Your task to perform on an android device: Show me productivity apps on the Play Store Image 0: 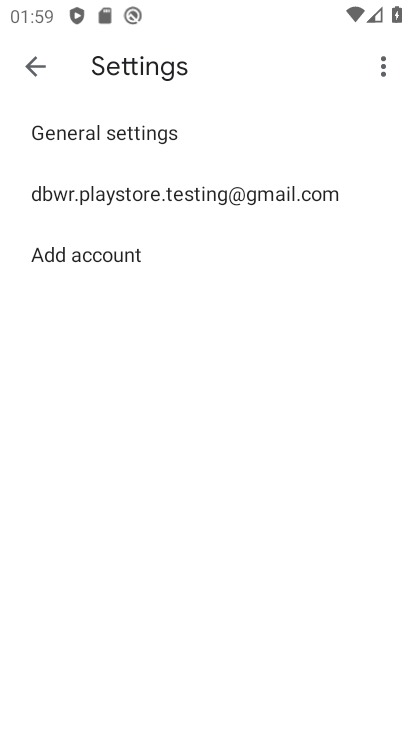
Step 0: press home button
Your task to perform on an android device: Show me productivity apps on the Play Store Image 1: 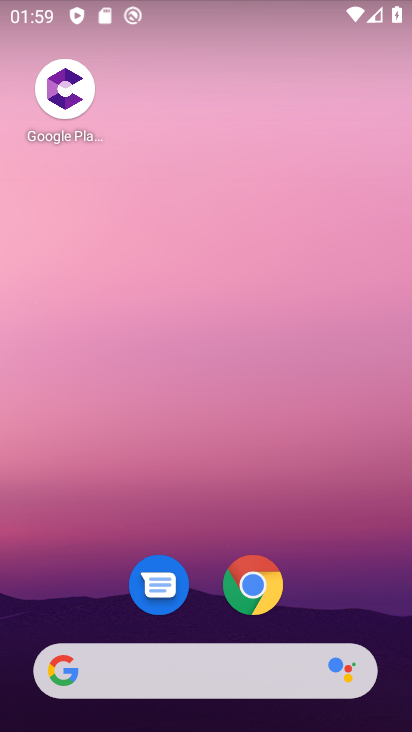
Step 1: drag from (185, 502) to (220, 7)
Your task to perform on an android device: Show me productivity apps on the Play Store Image 2: 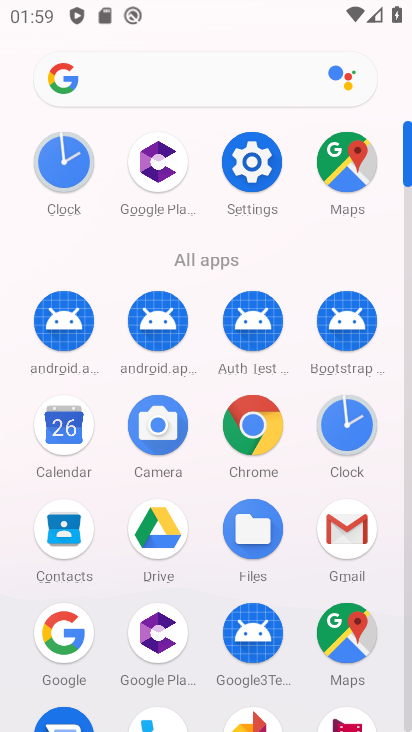
Step 2: drag from (196, 477) to (247, 191)
Your task to perform on an android device: Show me productivity apps on the Play Store Image 3: 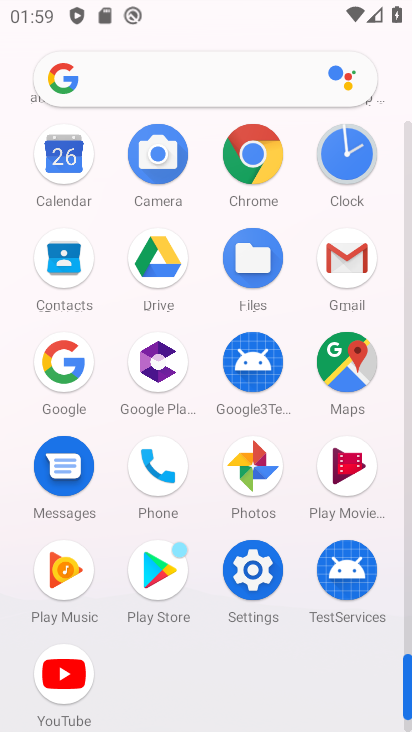
Step 3: click (149, 552)
Your task to perform on an android device: Show me productivity apps on the Play Store Image 4: 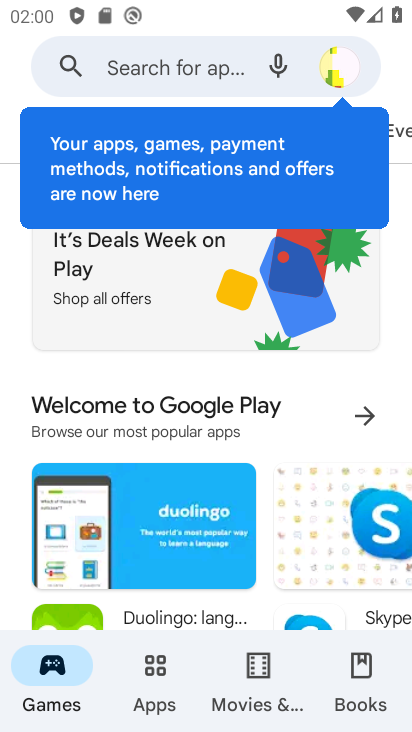
Step 4: click (151, 659)
Your task to perform on an android device: Show me productivity apps on the Play Store Image 5: 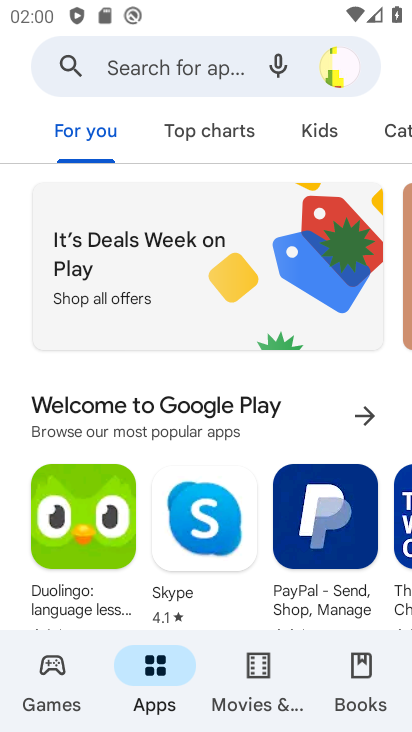
Step 5: click (390, 126)
Your task to perform on an android device: Show me productivity apps on the Play Store Image 6: 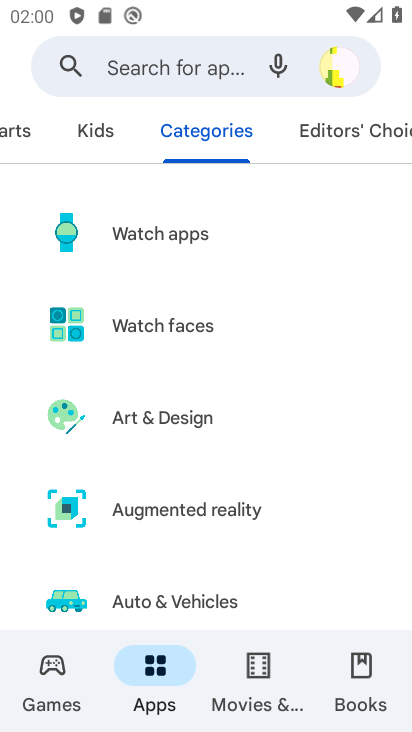
Step 6: drag from (275, 561) to (308, 142)
Your task to perform on an android device: Show me productivity apps on the Play Store Image 7: 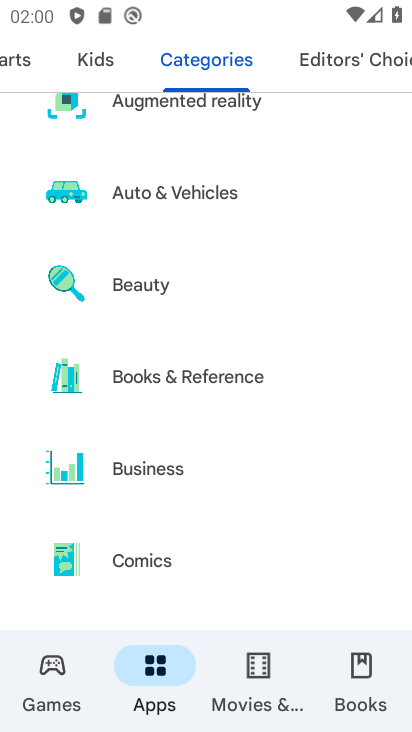
Step 7: drag from (236, 560) to (228, 129)
Your task to perform on an android device: Show me productivity apps on the Play Store Image 8: 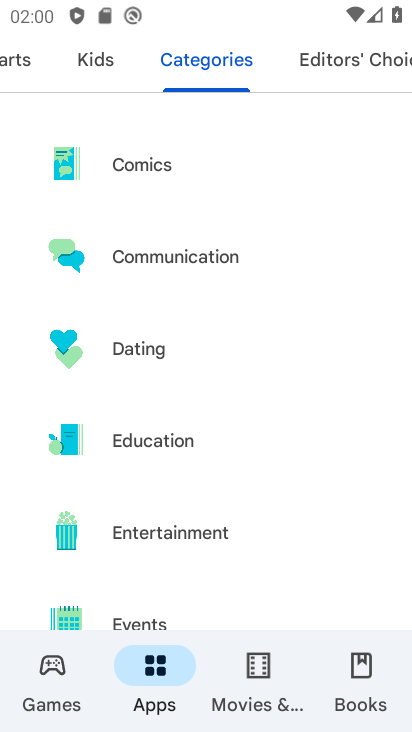
Step 8: drag from (292, 559) to (310, 126)
Your task to perform on an android device: Show me productivity apps on the Play Store Image 9: 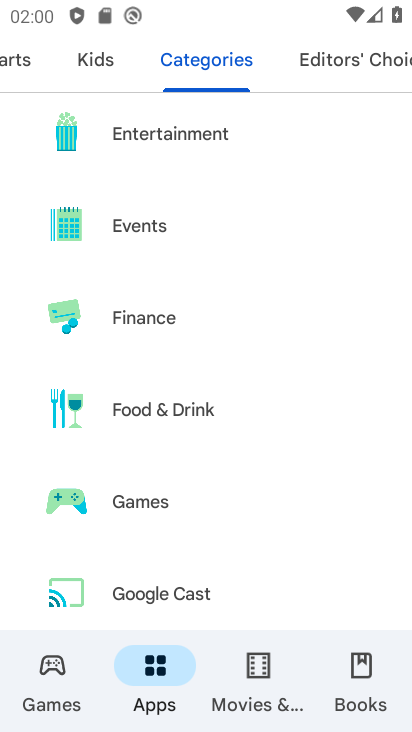
Step 9: drag from (263, 461) to (268, 143)
Your task to perform on an android device: Show me productivity apps on the Play Store Image 10: 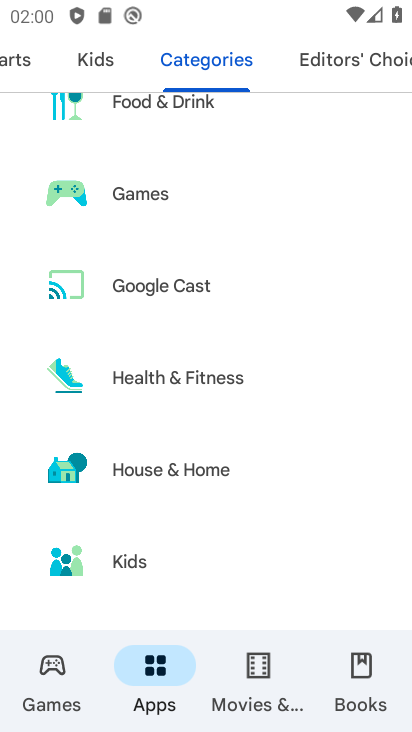
Step 10: drag from (254, 528) to (268, 153)
Your task to perform on an android device: Show me productivity apps on the Play Store Image 11: 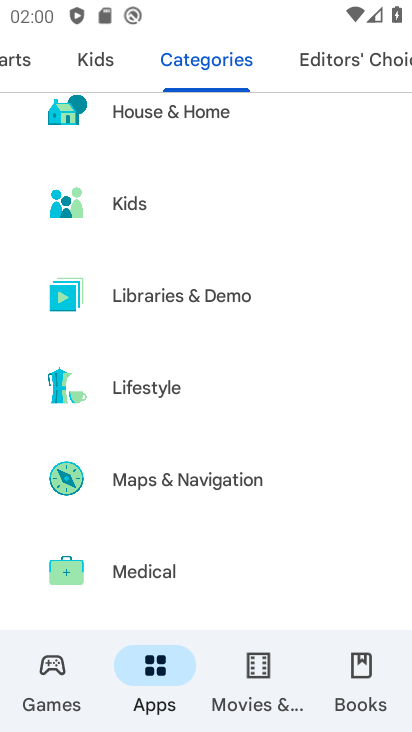
Step 11: drag from (238, 539) to (251, 170)
Your task to perform on an android device: Show me productivity apps on the Play Store Image 12: 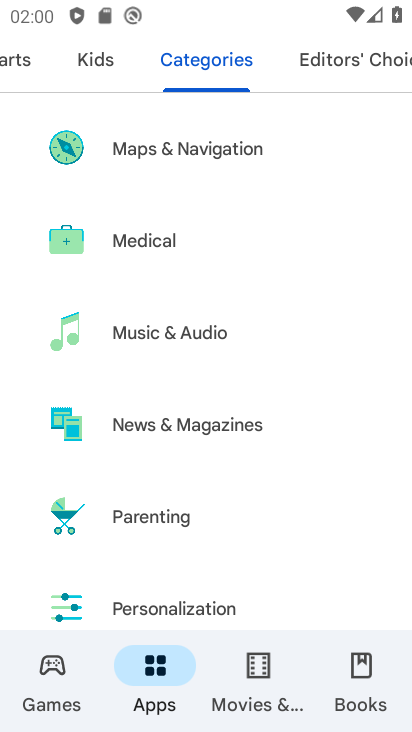
Step 12: drag from (242, 500) to (270, 162)
Your task to perform on an android device: Show me productivity apps on the Play Store Image 13: 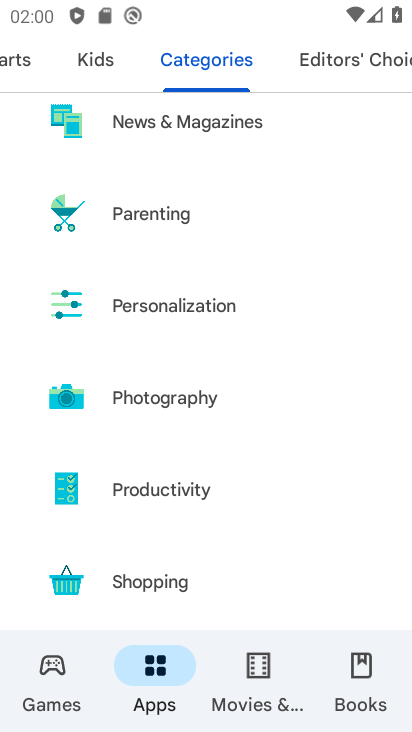
Step 13: click (207, 485)
Your task to perform on an android device: Show me productivity apps on the Play Store Image 14: 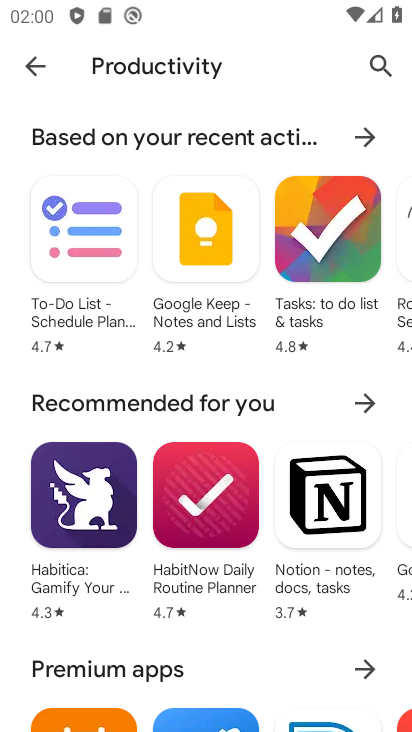
Step 14: task complete